Your task to perform on an android device: When is my next appointment? Image 0: 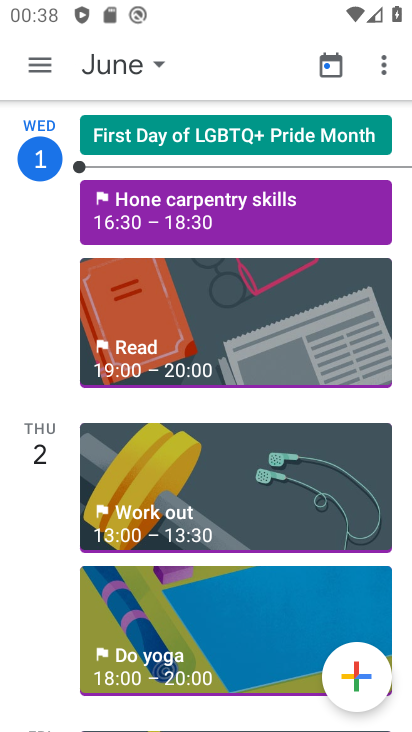
Step 0: click (225, 414)
Your task to perform on an android device: When is my next appointment? Image 1: 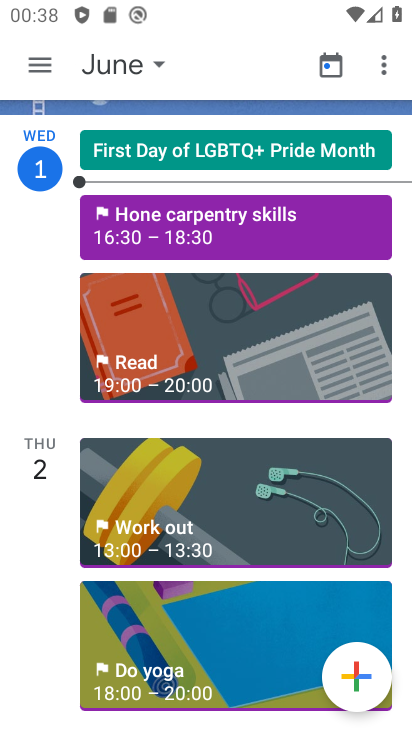
Step 1: task complete